Your task to perform on an android device: Is it going to rain today? Image 0: 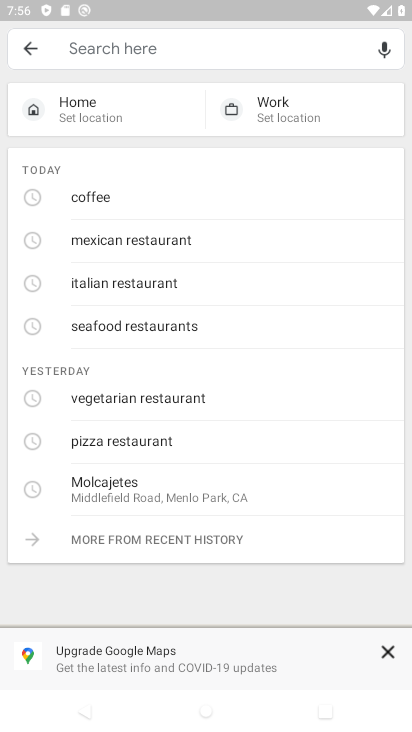
Step 0: press home button
Your task to perform on an android device: Is it going to rain today? Image 1: 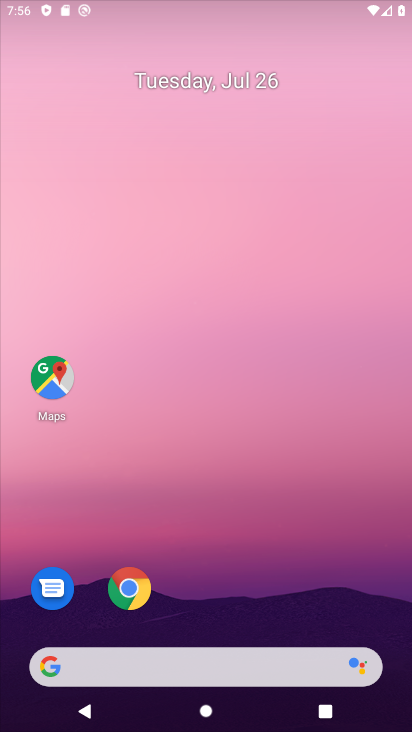
Step 1: drag from (249, 663) to (338, 54)
Your task to perform on an android device: Is it going to rain today? Image 2: 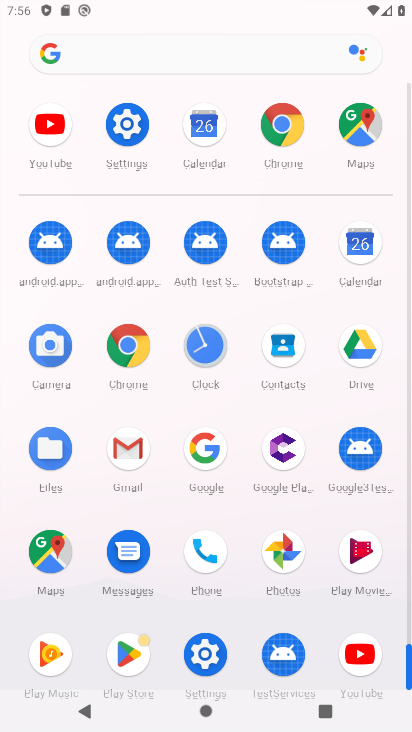
Step 2: click (295, 133)
Your task to perform on an android device: Is it going to rain today? Image 3: 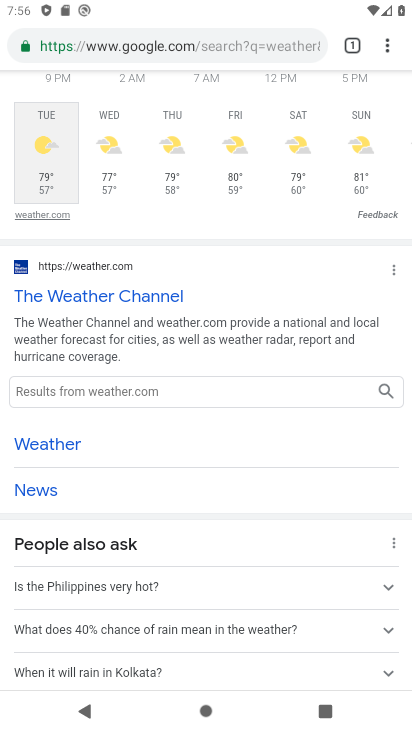
Step 3: task complete